Your task to perform on an android device: Open Reddit.com Image 0: 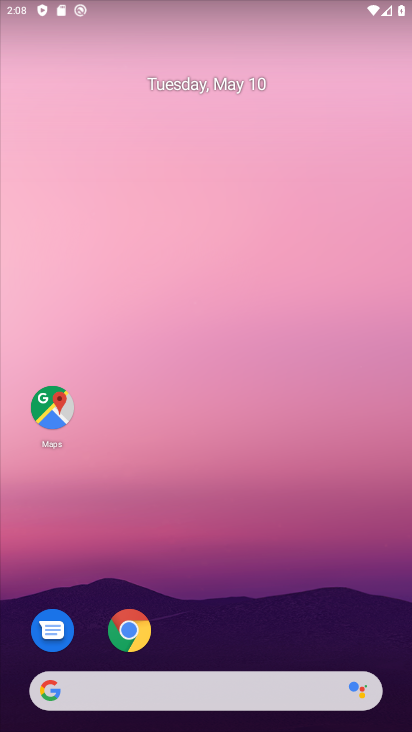
Step 0: drag from (362, 616) to (259, 228)
Your task to perform on an android device: Open Reddit.com Image 1: 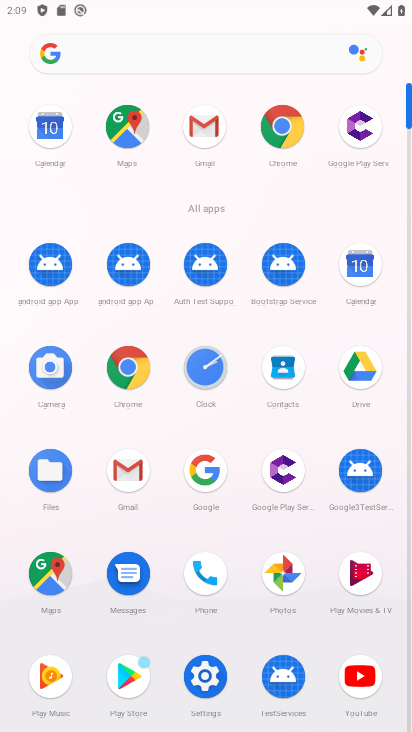
Step 1: click (109, 409)
Your task to perform on an android device: Open Reddit.com Image 2: 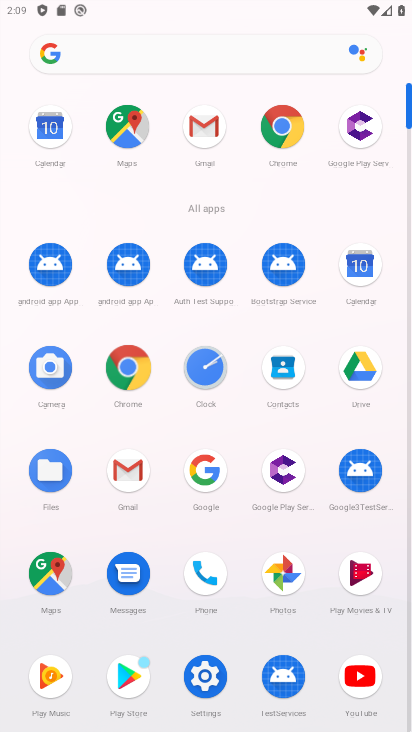
Step 2: click (109, 410)
Your task to perform on an android device: Open Reddit.com Image 3: 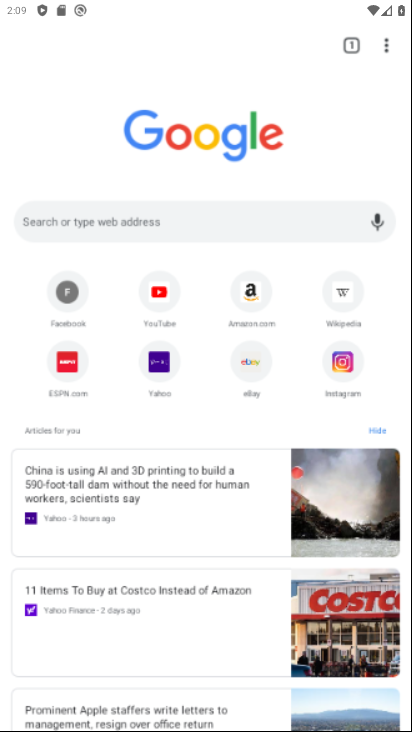
Step 3: click (127, 380)
Your task to perform on an android device: Open Reddit.com Image 4: 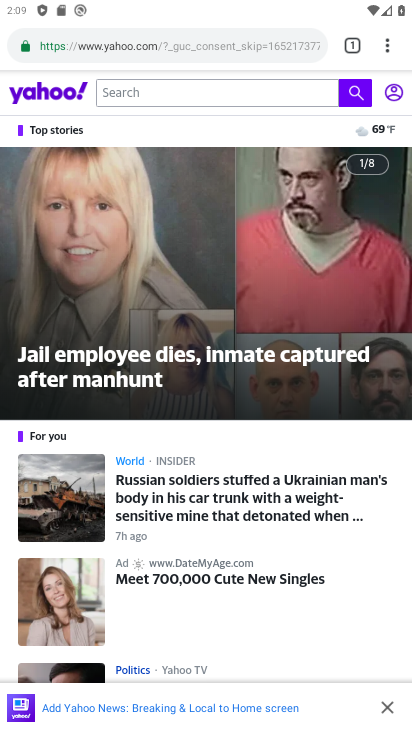
Step 4: drag from (387, 47) to (240, 586)
Your task to perform on an android device: Open Reddit.com Image 5: 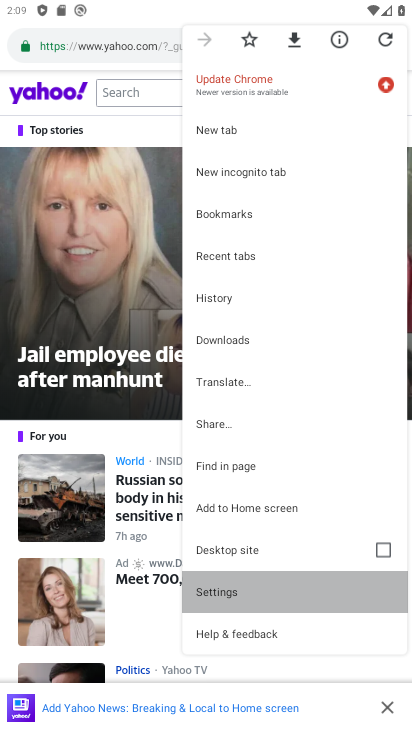
Step 5: click (257, 614)
Your task to perform on an android device: Open Reddit.com Image 6: 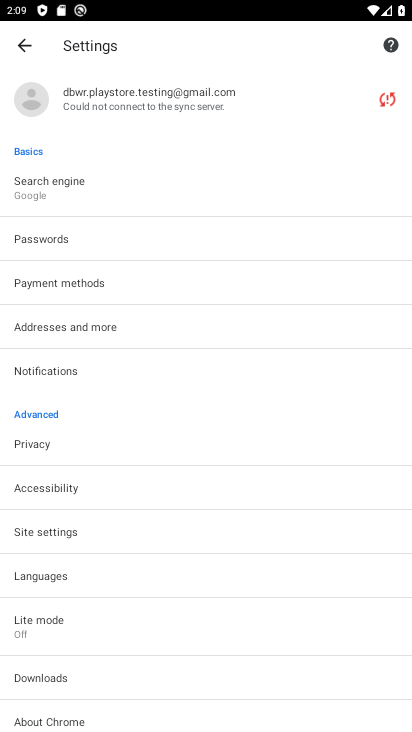
Step 6: drag from (152, 519) to (73, 224)
Your task to perform on an android device: Open Reddit.com Image 7: 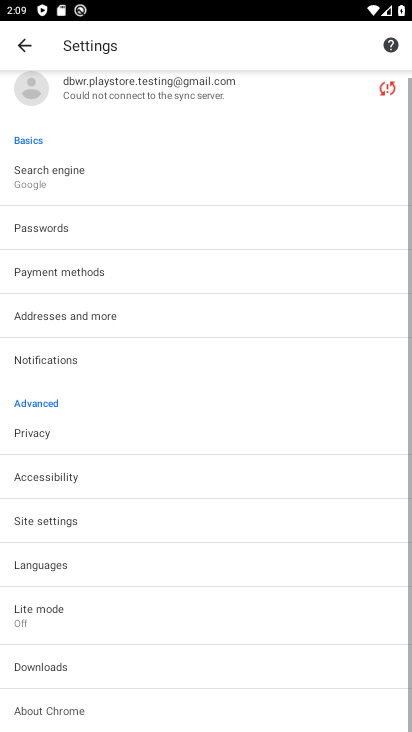
Step 7: drag from (288, 512) to (170, 5)
Your task to perform on an android device: Open Reddit.com Image 8: 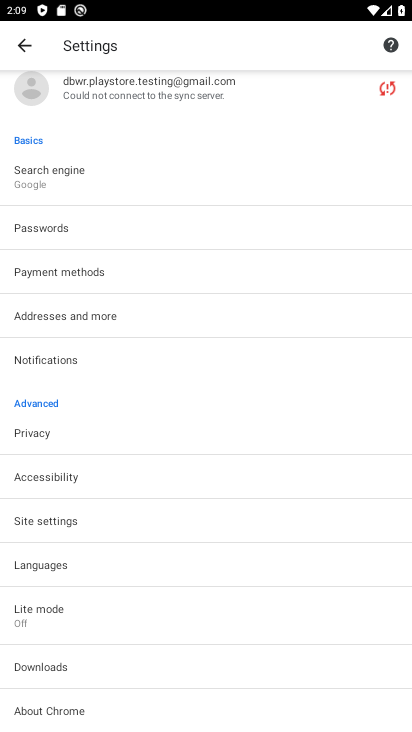
Step 8: click (15, 42)
Your task to perform on an android device: Open Reddit.com Image 9: 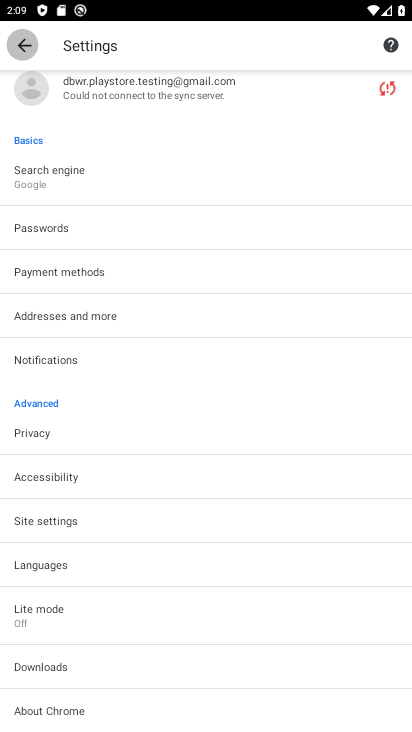
Step 9: click (15, 42)
Your task to perform on an android device: Open Reddit.com Image 10: 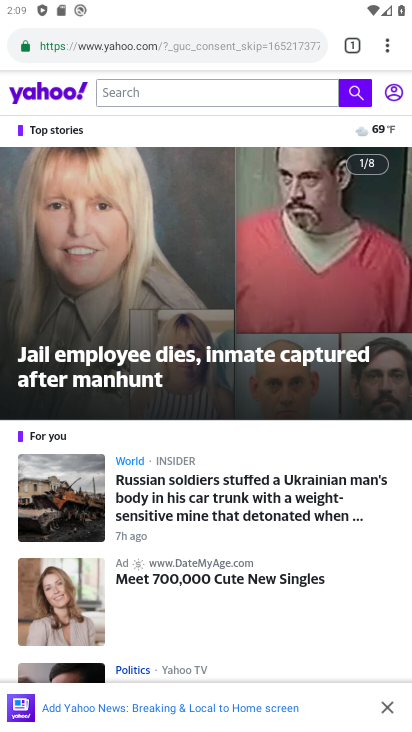
Step 10: drag from (384, 46) to (207, 140)
Your task to perform on an android device: Open Reddit.com Image 11: 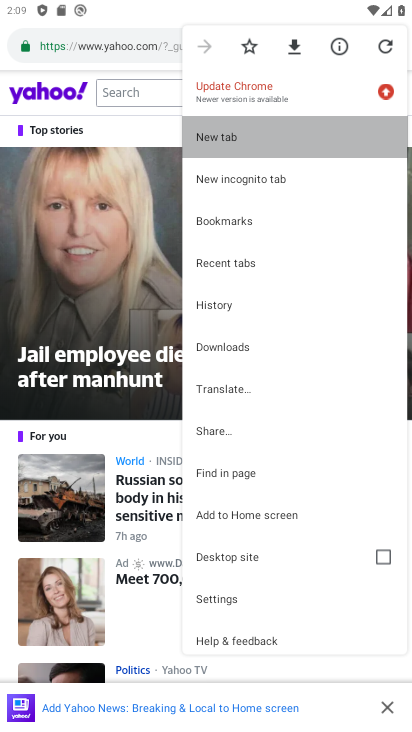
Step 11: click (207, 140)
Your task to perform on an android device: Open Reddit.com Image 12: 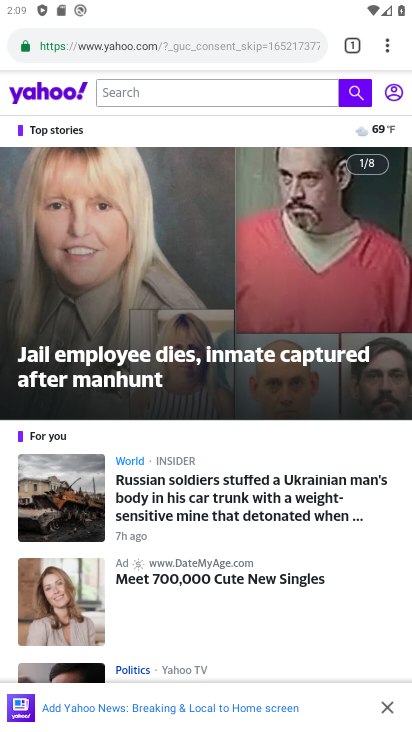
Step 12: click (207, 140)
Your task to perform on an android device: Open Reddit.com Image 13: 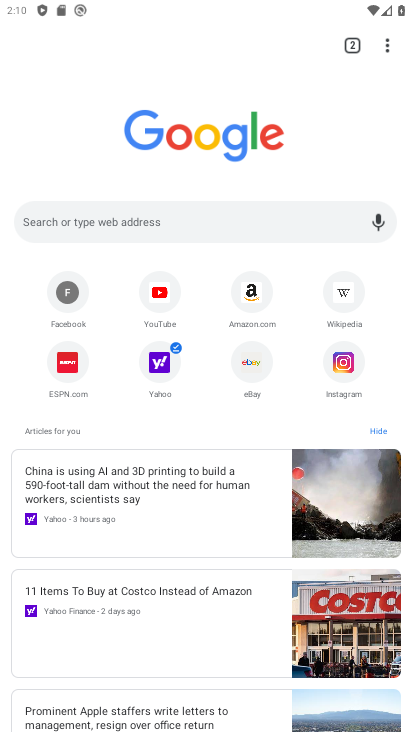
Step 13: click (96, 222)
Your task to perform on an android device: Open Reddit.com Image 14: 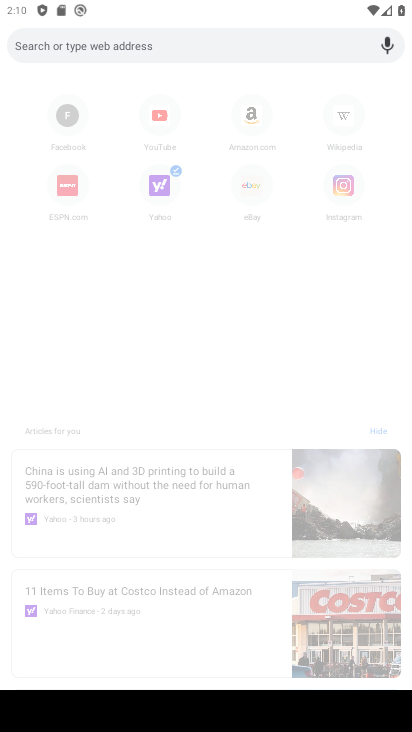
Step 14: type "reddit.com"
Your task to perform on an android device: Open Reddit.com Image 15: 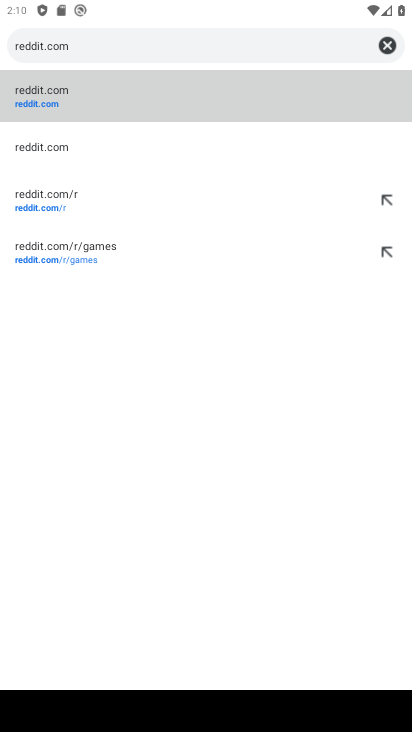
Step 15: click (34, 93)
Your task to perform on an android device: Open Reddit.com Image 16: 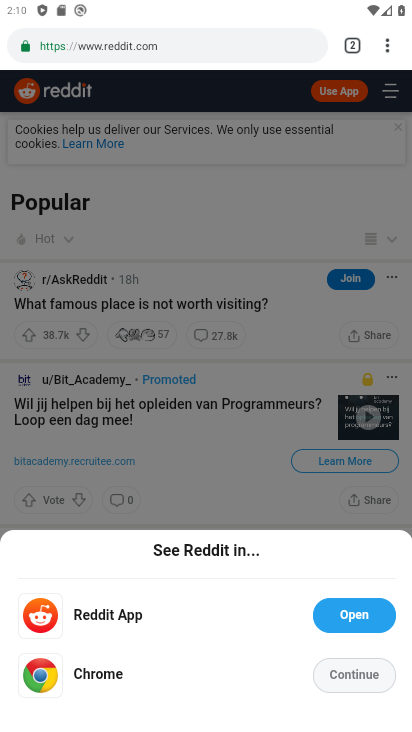
Step 16: task complete